Your task to perform on an android device: When is my next meeting? Image 0: 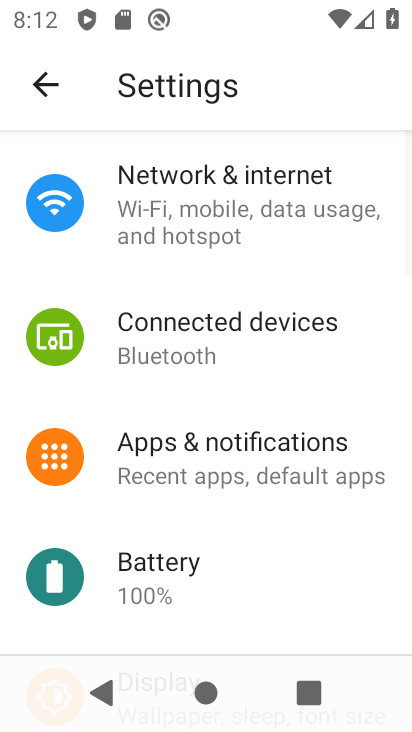
Step 0: press home button
Your task to perform on an android device: When is my next meeting? Image 1: 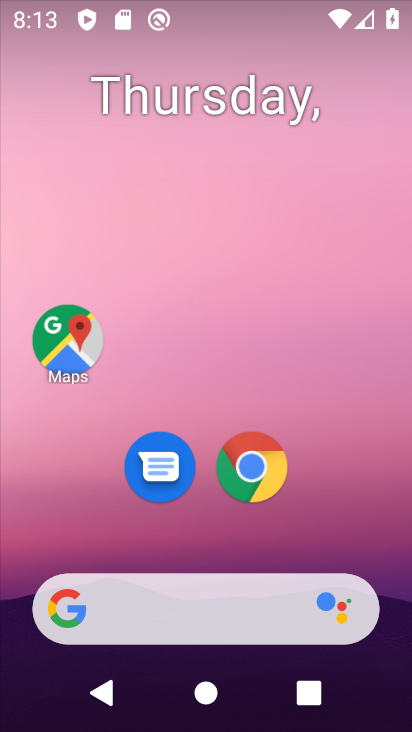
Step 1: drag from (351, 521) to (195, 68)
Your task to perform on an android device: When is my next meeting? Image 2: 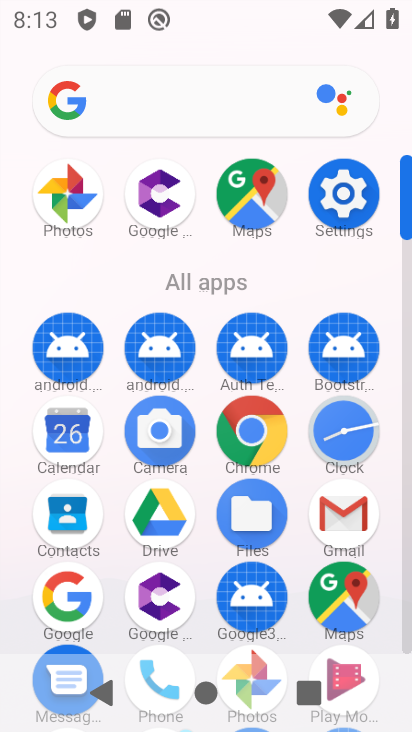
Step 2: click (61, 440)
Your task to perform on an android device: When is my next meeting? Image 3: 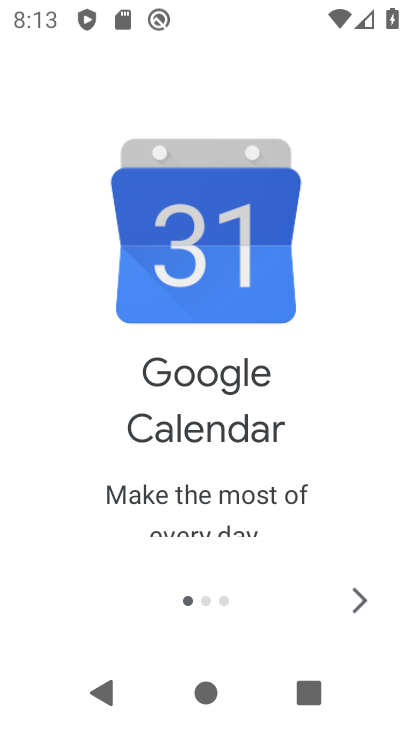
Step 3: click (357, 596)
Your task to perform on an android device: When is my next meeting? Image 4: 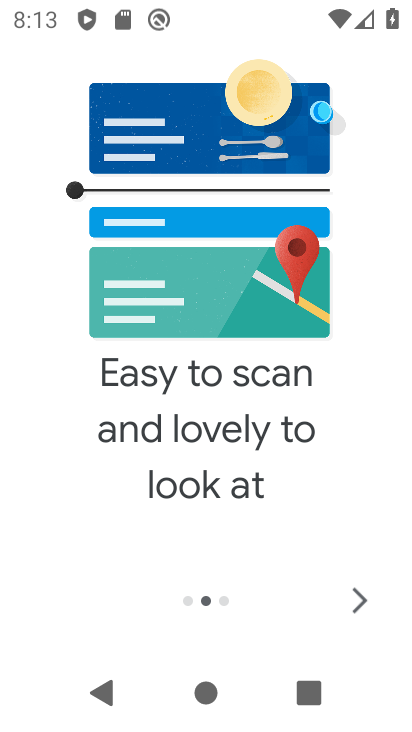
Step 4: click (357, 596)
Your task to perform on an android device: When is my next meeting? Image 5: 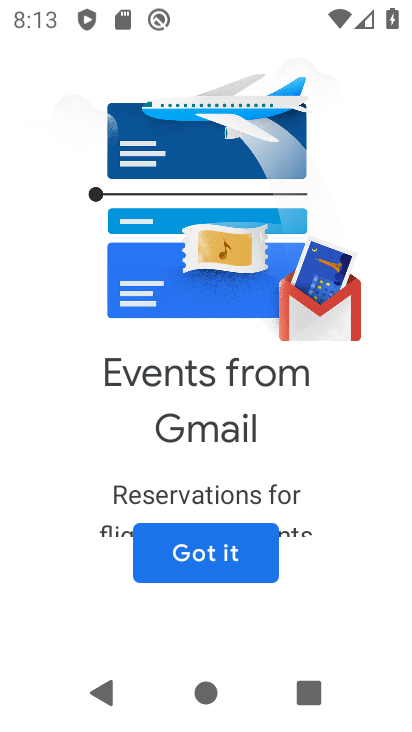
Step 5: click (228, 558)
Your task to perform on an android device: When is my next meeting? Image 6: 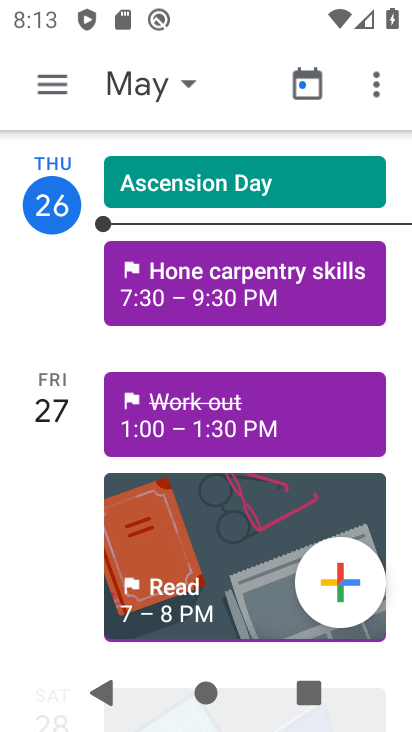
Step 6: click (56, 76)
Your task to perform on an android device: When is my next meeting? Image 7: 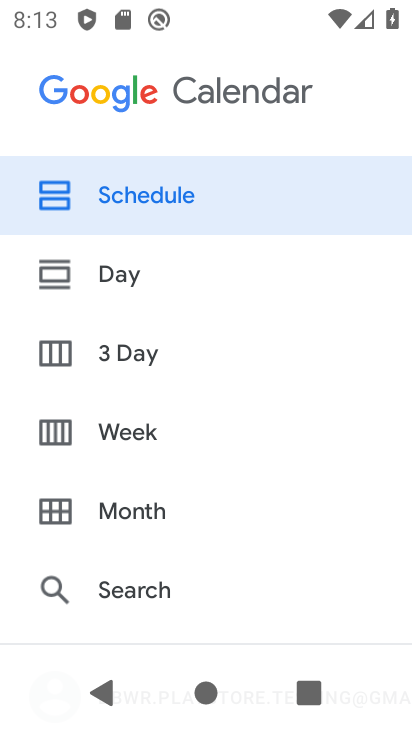
Step 7: click (116, 267)
Your task to perform on an android device: When is my next meeting? Image 8: 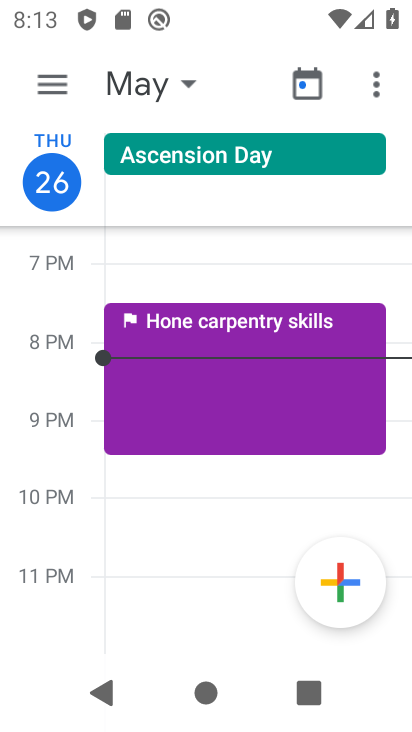
Step 8: task complete